Your task to perform on an android device: change the upload size in google photos Image 0: 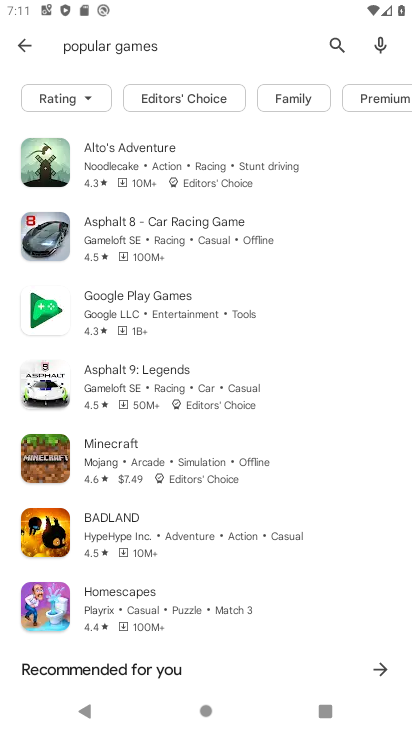
Step 0: press home button
Your task to perform on an android device: change the upload size in google photos Image 1: 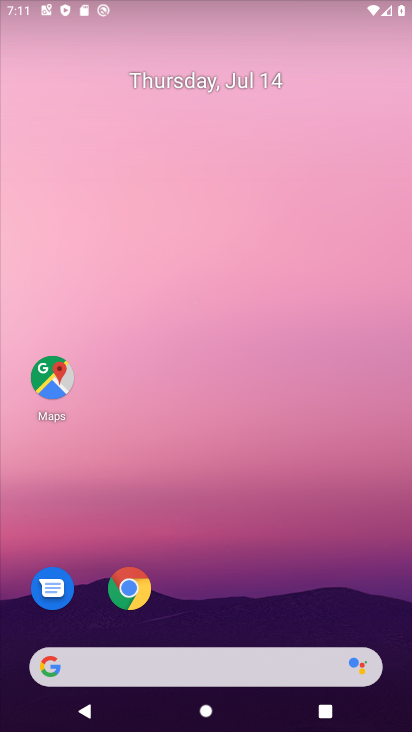
Step 1: drag from (384, 655) to (209, 33)
Your task to perform on an android device: change the upload size in google photos Image 2: 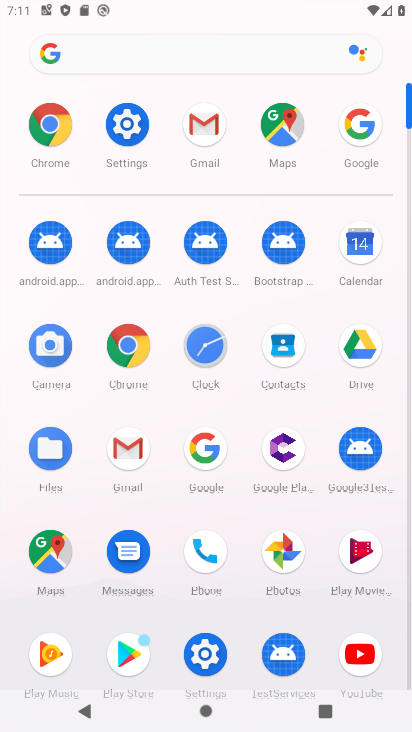
Step 2: click (267, 556)
Your task to perform on an android device: change the upload size in google photos Image 3: 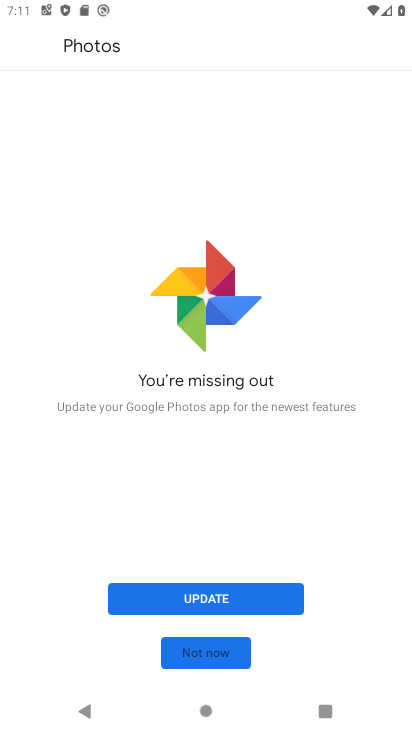
Step 3: click (205, 594)
Your task to perform on an android device: change the upload size in google photos Image 4: 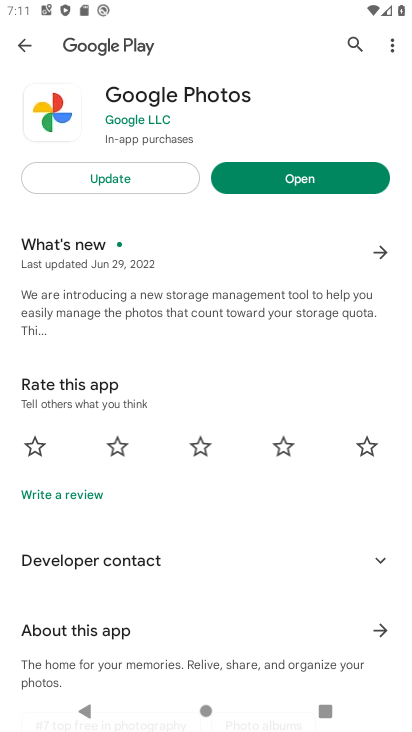
Step 4: click (96, 172)
Your task to perform on an android device: change the upload size in google photos Image 5: 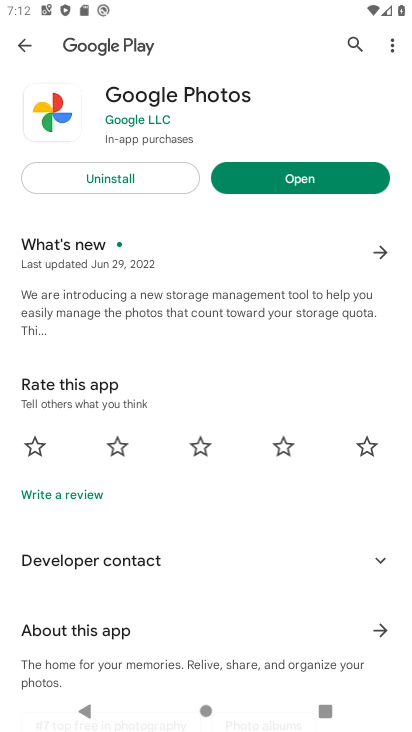
Step 5: click (353, 178)
Your task to perform on an android device: change the upload size in google photos Image 6: 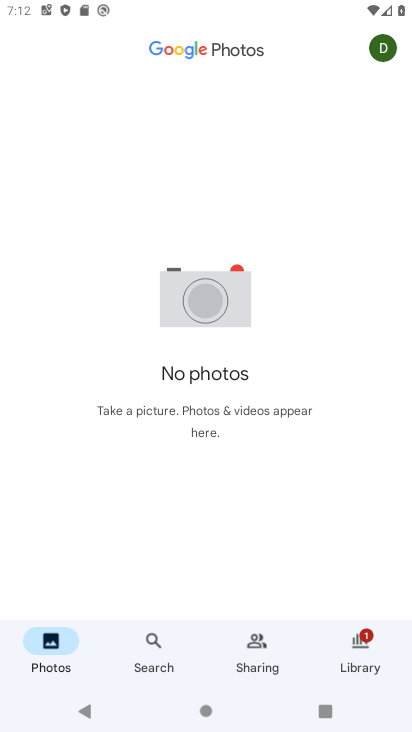
Step 6: click (384, 49)
Your task to perform on an android device: change the upload size in google photos Image 7: 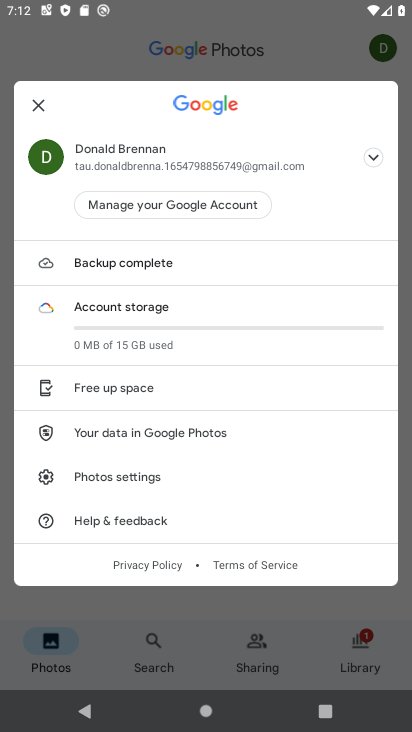
Step 7: click (117, 477)
Your task to perform on an android device: change the upload size in google photos Image 8: 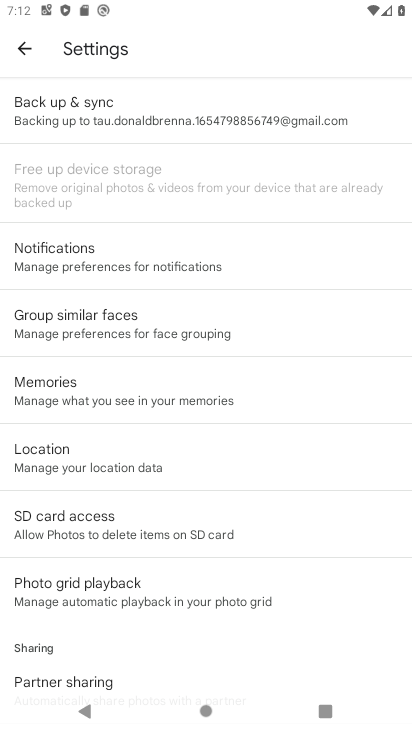
Step 8: click (79, 110)
Your task to perform on an android device: change the upload size in google photos Image 9: 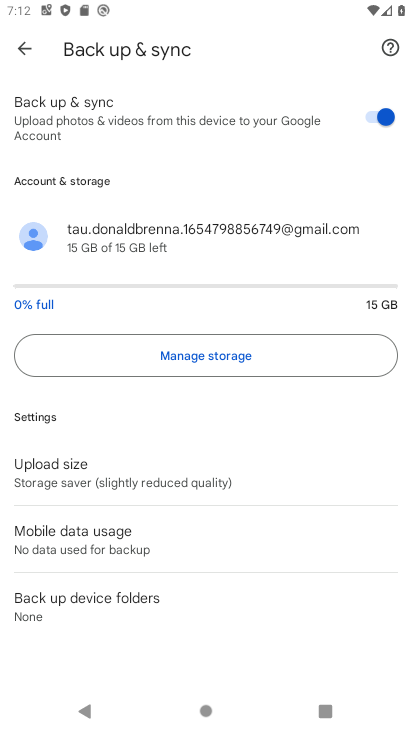
Step 9: click (97, 468)
Your task to perform on an android device: change the upload size in google photos Image 10: 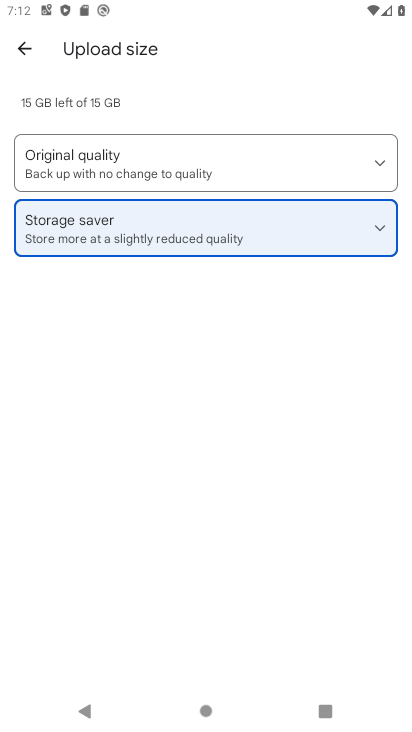
Step 10: click (77, 165)
Your task to perform on an android device: change the upload size in google photos Image 11: 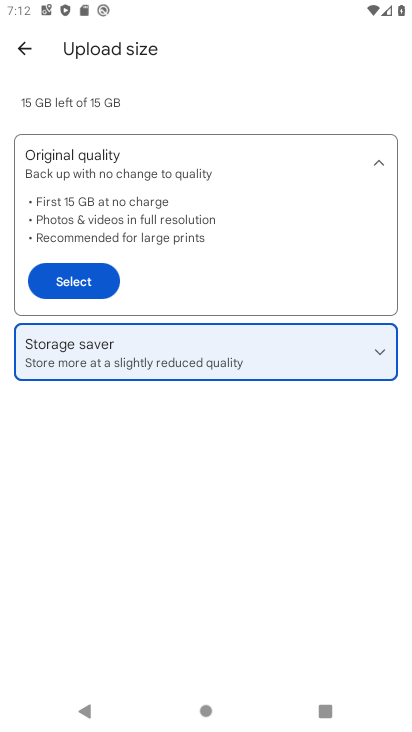
Step 11: click (79, 281)
Your task to perform on an android device: change the upload size in google photos Image 12: 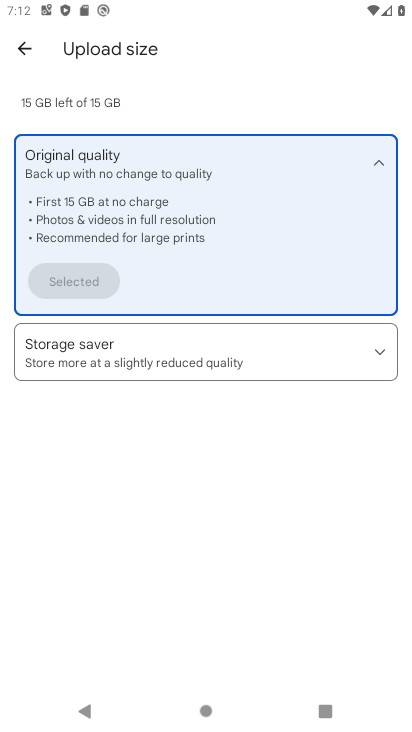
Step 12: task complete